Your task to perform on an android device: Open display settings Image 0: 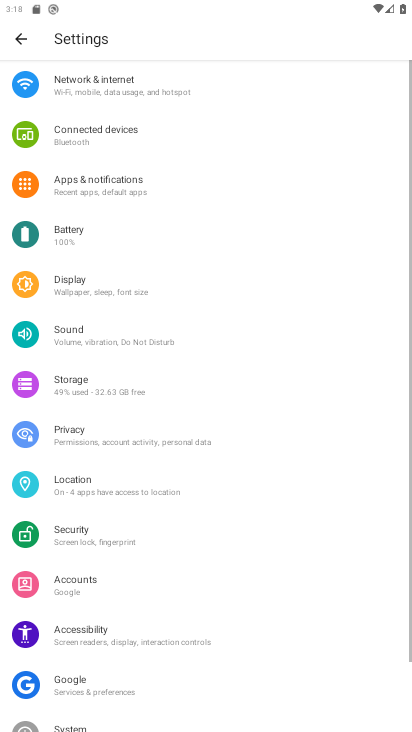
Step 0: click (96, 285)
Your task to perform on an android device: Open display settings Image 1: 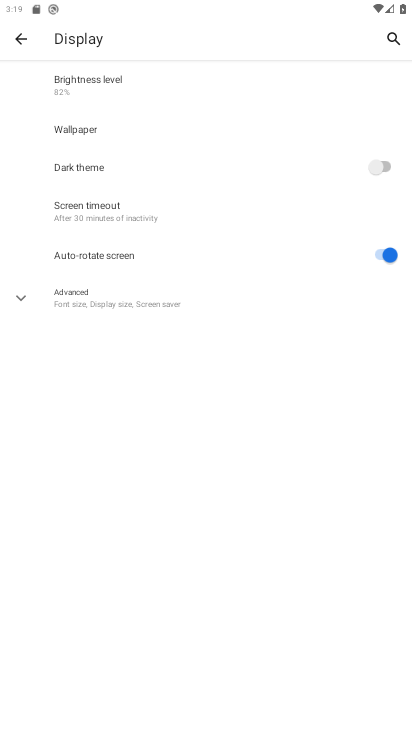
Step 1: task complete